Your task to perform on an android device: Open the map Image 0: 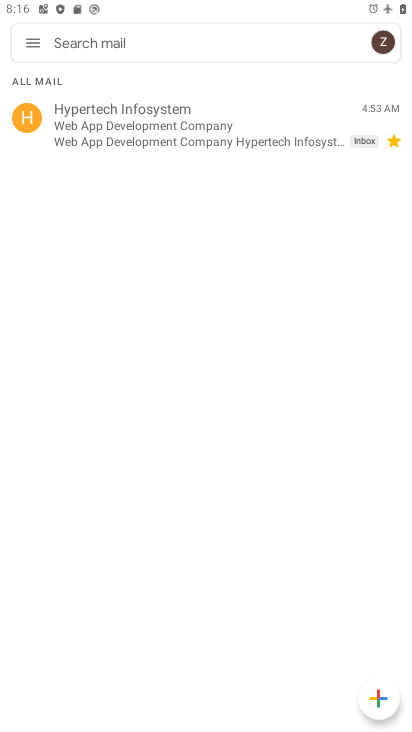
Step 0: press home button
Your task to perform on an android device: Open the map Image 1: 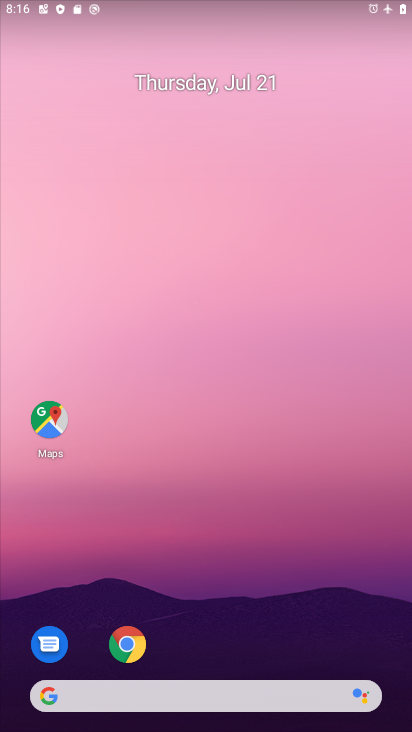
Step 1: click (54, 429)
Your task to perform on an android device: Open the map Image 2: 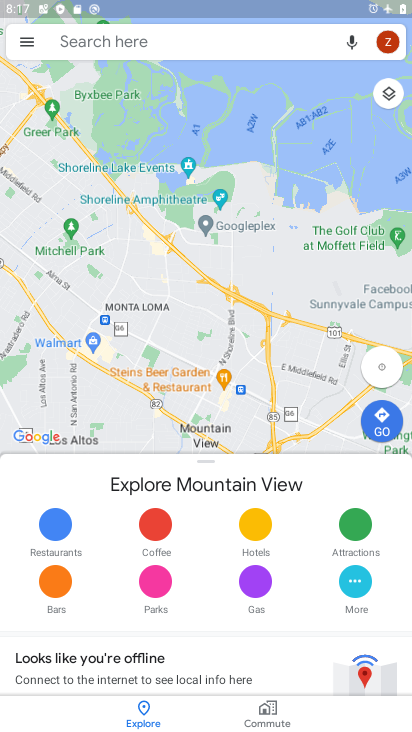
Step 2: task complete